Your task to perform on an android device: Find coffee shops on Maps Image 0: 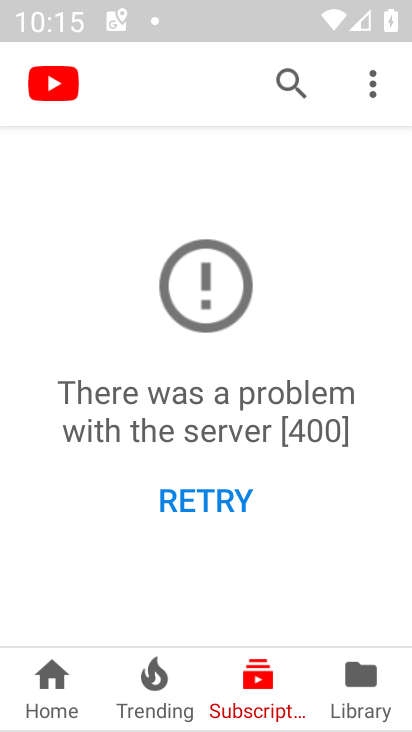
Step 0: press home button
Your task to perform on an android device: Find coffee shops on Maps Image 1: 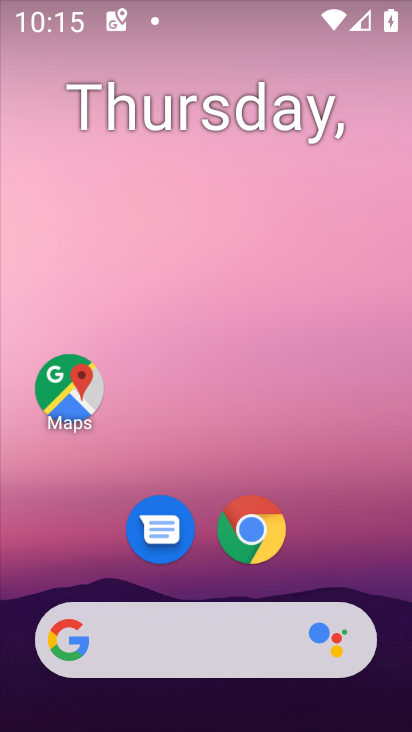
Step 1: click (63, 391)
Your task to perform on an android device: Find coffee shops on Maps Image 2: 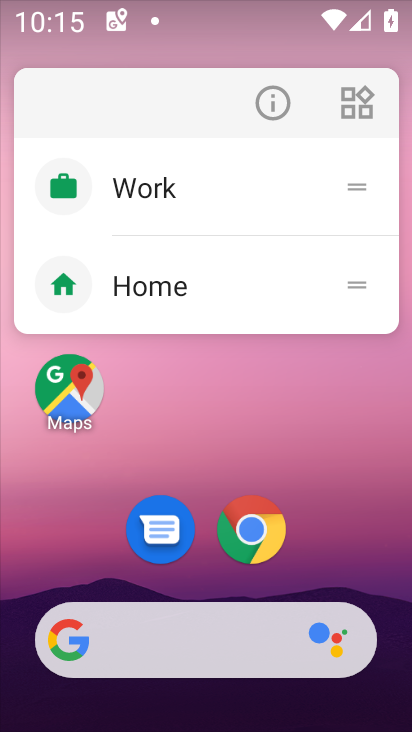
Step 2: click (76, 394)
Your task to perform on an android device: Find coffee shops on Maps Image 3: 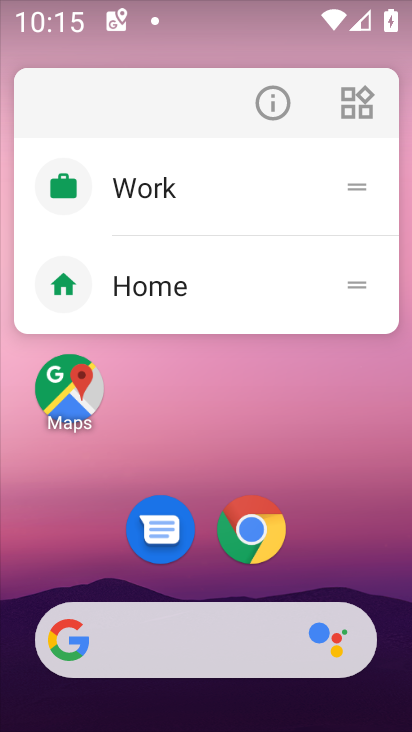
Step 3: click (75, 394)
Your task to perform on an android device: Find coffee shops on Maps Image 4: 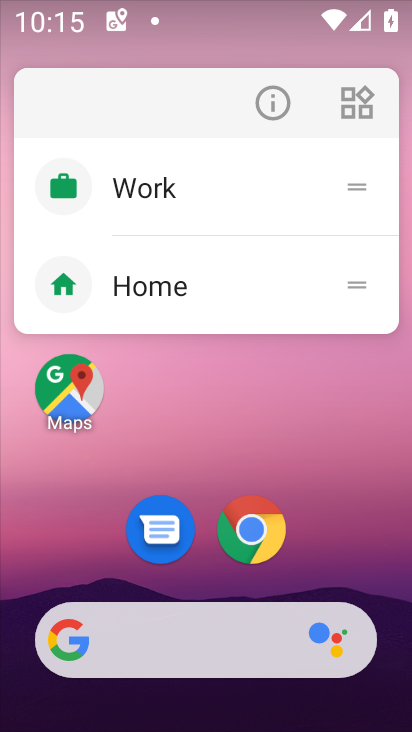
Step 4: click (75, 394)
Your task to perform on an android device: Find coffee shops on Maps Image 5: 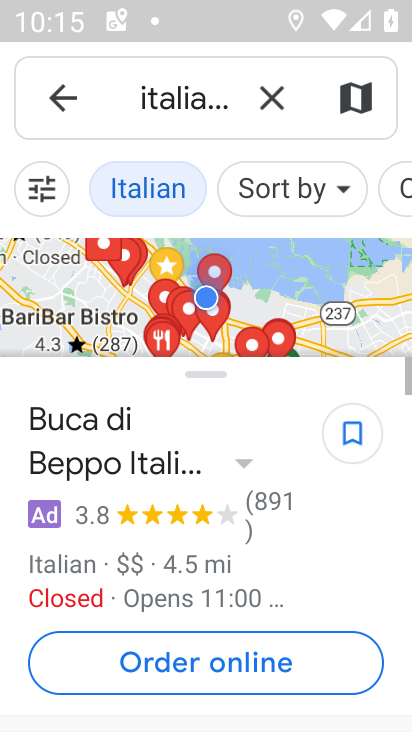
Step 5: click (268, 113)
Your task to perform on an android device: Find coffee shops on Maps Image 6: 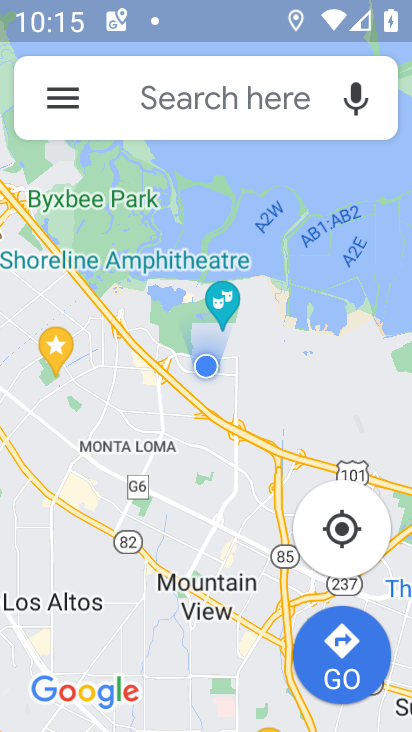
Step 6: click (242, 108)
Your task to perform on an android device: Find coffee shops on Maps Image 7: 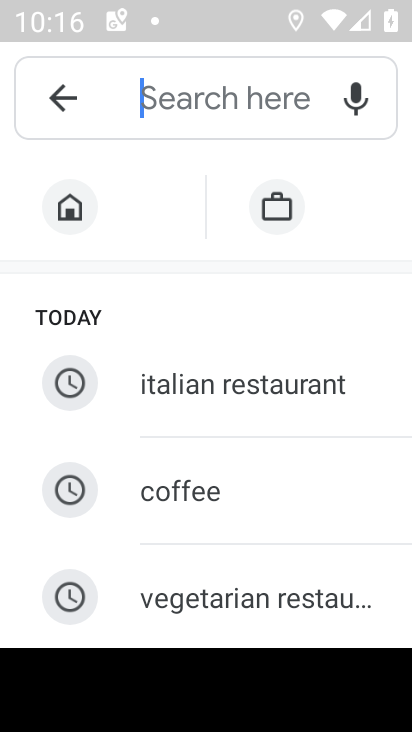
Step 7: type "coffee shop"
Your task to perform on an android device: Find coffee shops on Maps Image 8: 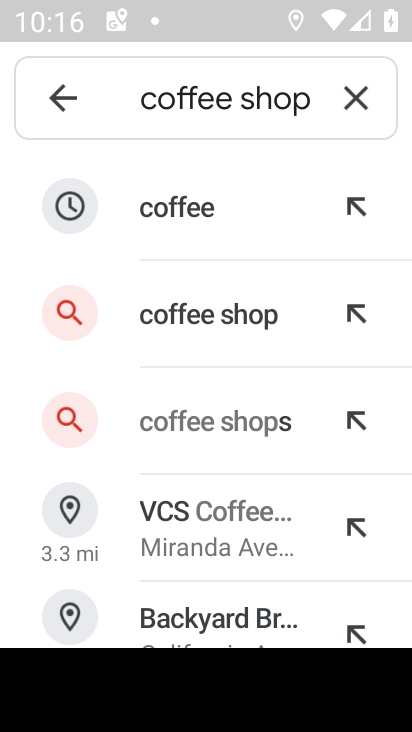
Step 8: click (188, 320)
Your task to perform on an android device: Find coffee shops on Maps Image 9: 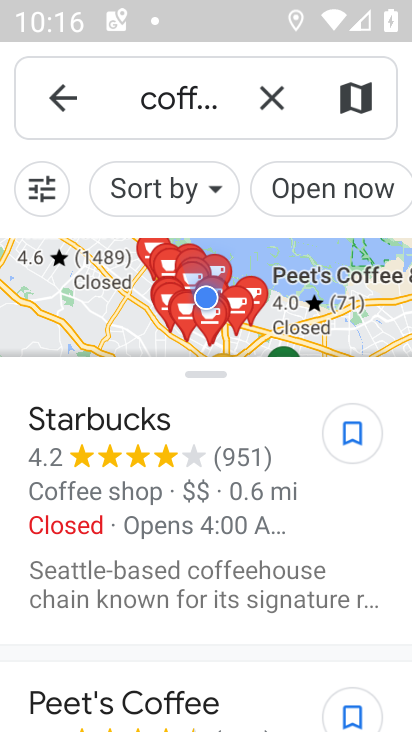
Step 9: task complete